Your task to perform on an android device: turn on priority inbox in the gmail app Image 0: 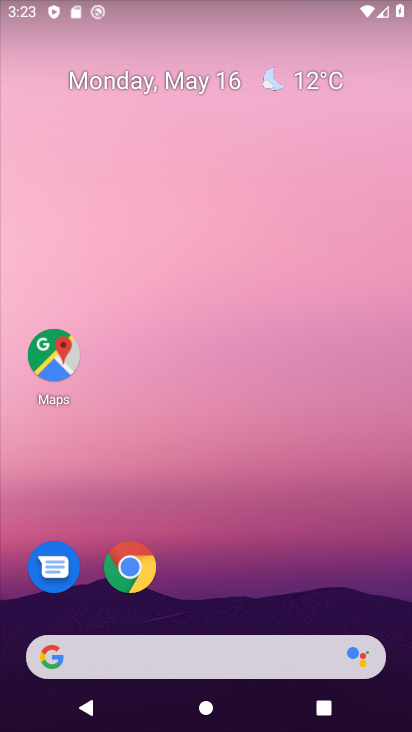
Step 0: drag from (285, 555) to (253, 11)
Your task to perform on an android device: turn on priority inbox in the gmail app Image 1: 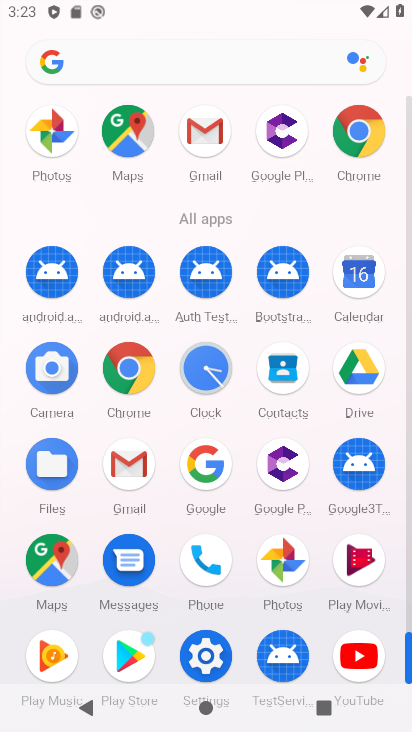
Step 1: drag from (11, 553) to (1, 211)
Your task to perform on an android device: turn on priority inbox in the gmail app Image 2: 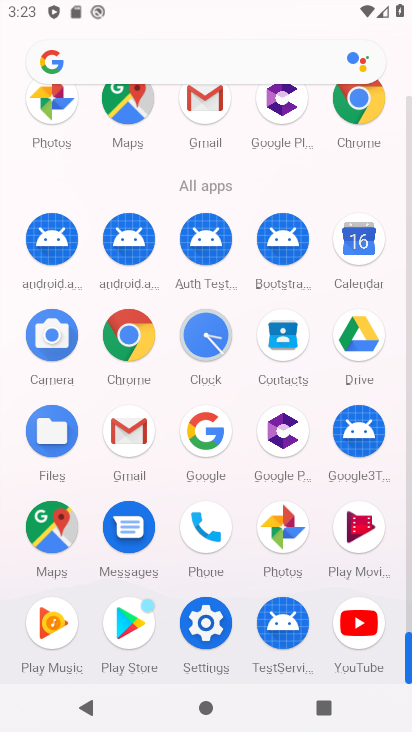
Step 2: click (125, 419)
Your task to perform on an android device: turn on priority inbox in the gmail app Image 3: 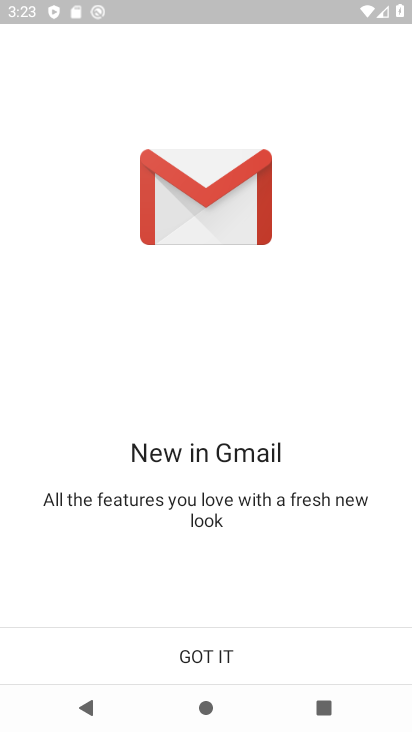
Step 3: click (202, 669)
Your task to perform on an android device: turn on priority inbox in the gmail app Image 4: 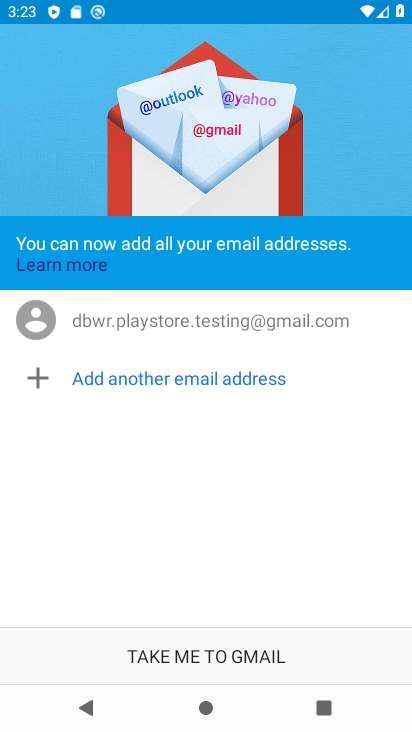
Step 4: click (222, 650)
Your task to perform on an android device: turn on priority inbox in the gmail app Image 5: 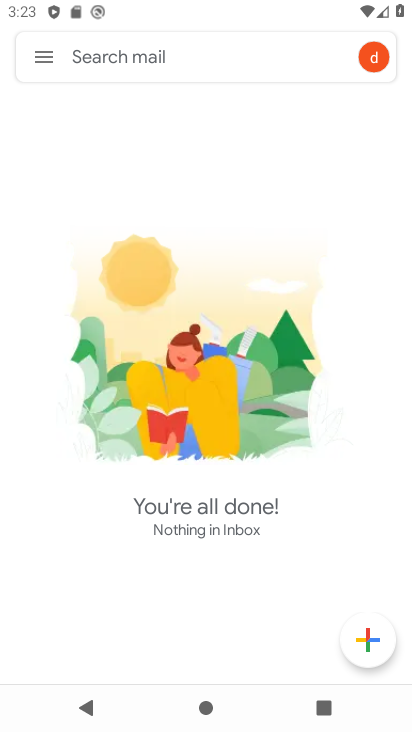
Step 5: click (50, 59)
Your task to perform on an android device: turn on priority inbox in the gmail app Image 6: 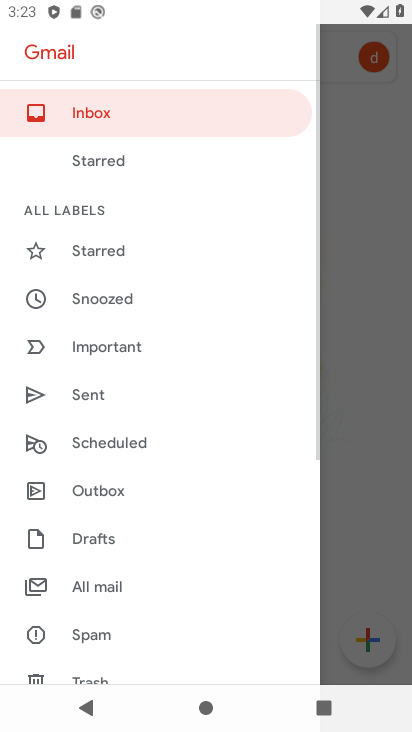
Step 6: drag from (177, 603) to (168, 124)
Your task to perform on an android device: turn on priority inbox in the gmail app Image 7: 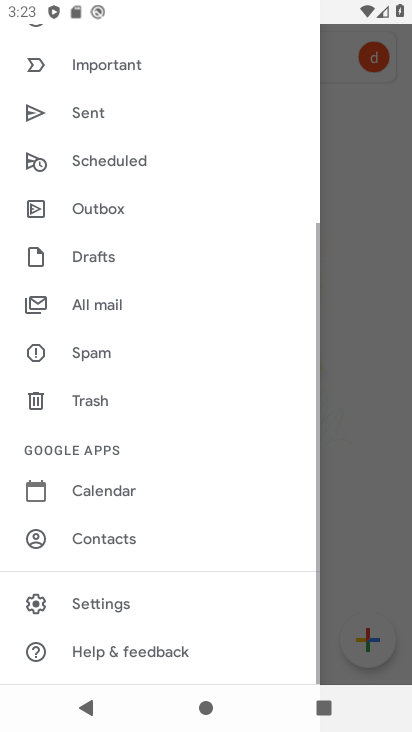
Step 7: drag from (168, 513) to (179, 116)
Your task to perform on an android device: turn on priority inbox in the gmail app Image 8: 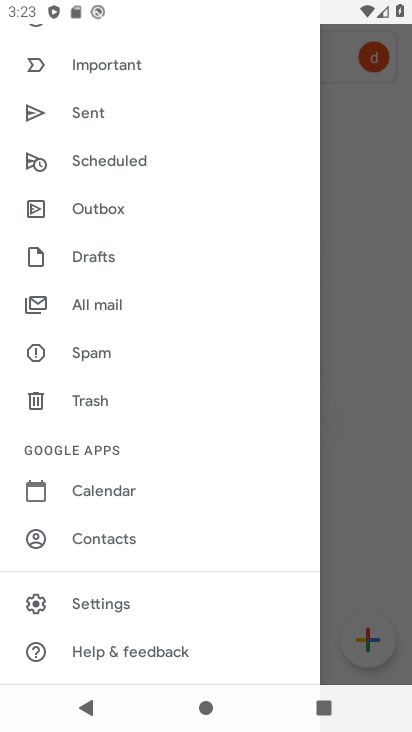
Step 8: click (117, 608)
Your task to perform on an android device: turn on priority inbox in the gmail app Image 9: 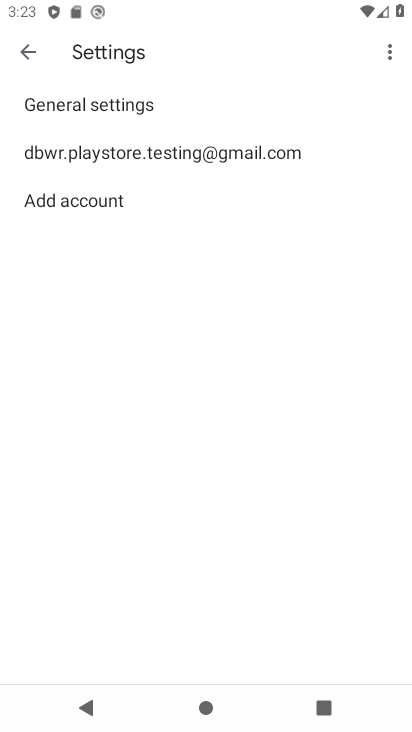
Step 9: click (135, 154)
Your task to perform on an android device: turn on priority inbox in the gmail app Image 10: 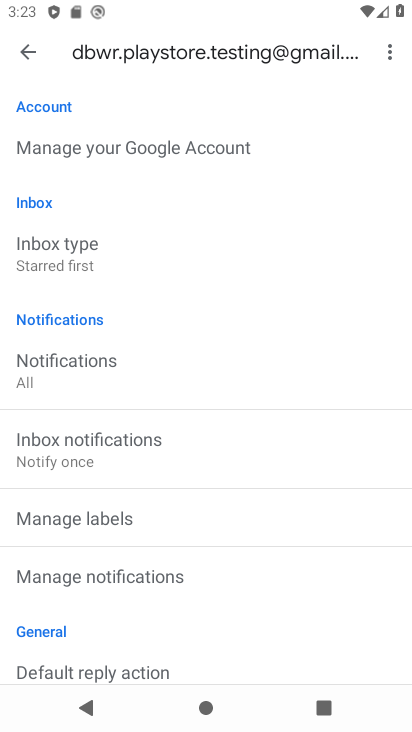
Step 10: click (100, 255)
Your task to perform on an android device: turn on priority inbox in the gmail app Image 11: 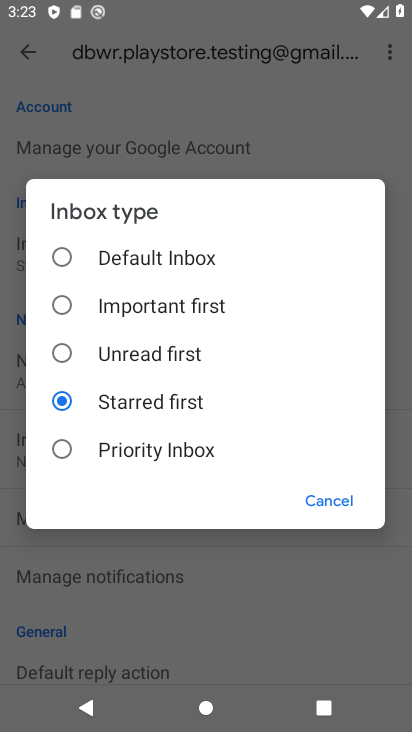
Step 11: click (153, 249)
Your task to perform on an android device: turn on priority inbox in the gmail app Image 12: 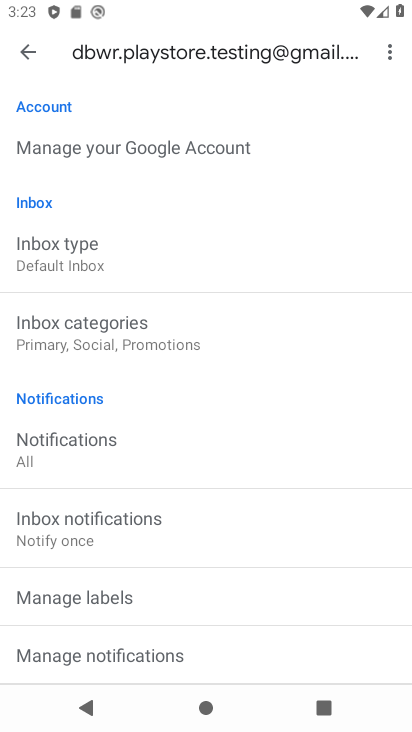
Step 12: click (121, 273)
Your task to perform on an android device: turn on priority inbox in the gmail app Image 13: 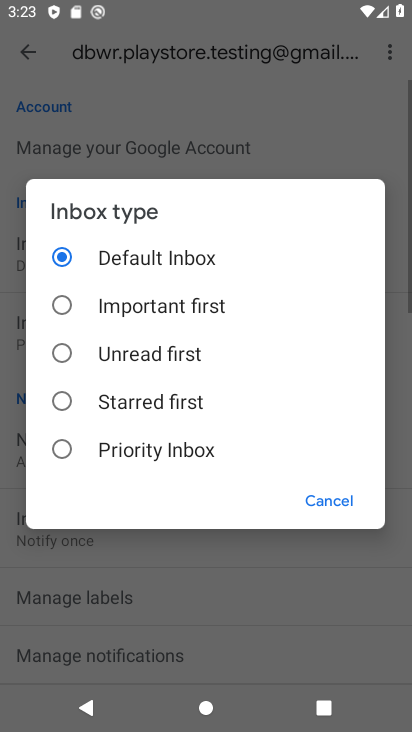
Step 13: click (109, 458)
Your task to perform on an android device: turn on priority inbox in the gmail app Image 14: 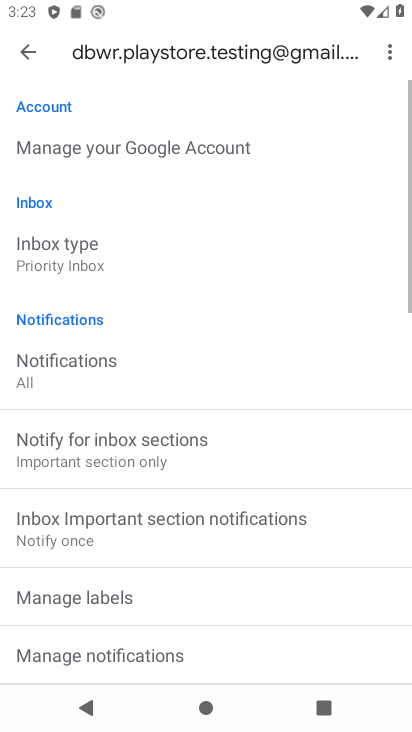
Step 14: task complete